Your task to perform on an android device: What's the weather? Image 0: 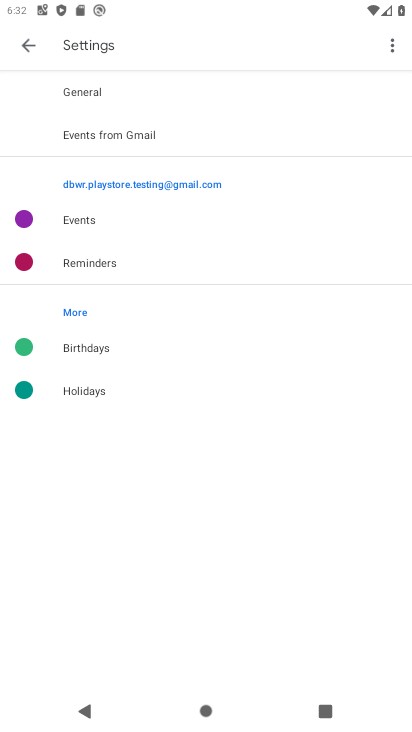
Step 0: press home button
Your task to perform on an android device: What's the weather? Image 1: 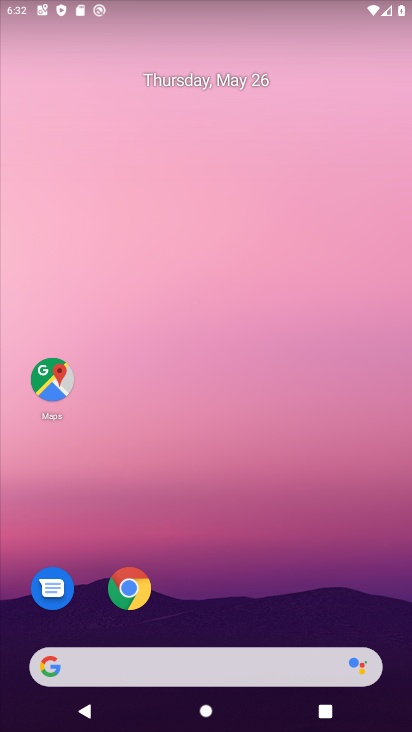
Step 1: drag from (344, 601) to (292, 35)
Your task to perform on an android device: What's the weather? Image 2: 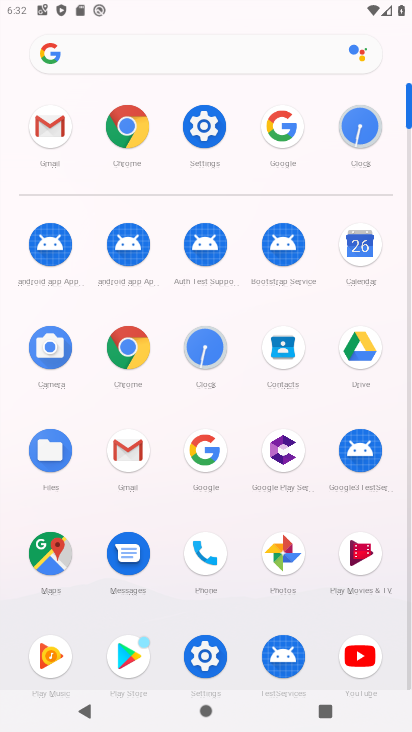
Step 2: click (193, 469)
Your task to perform on an android device: What's the weather? Image 3: 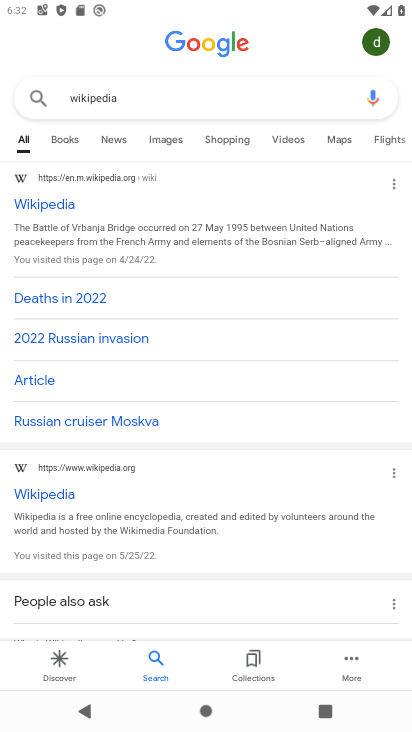
Step 3: press back button
Your task to perform on an android device: What's the weather? Image 4: 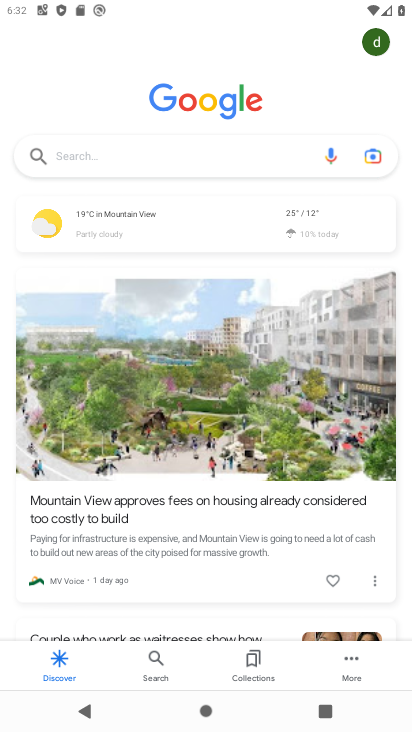
Step 4: click (134, 147)
Your task to perform on an android device: What's the weather? Image 5: 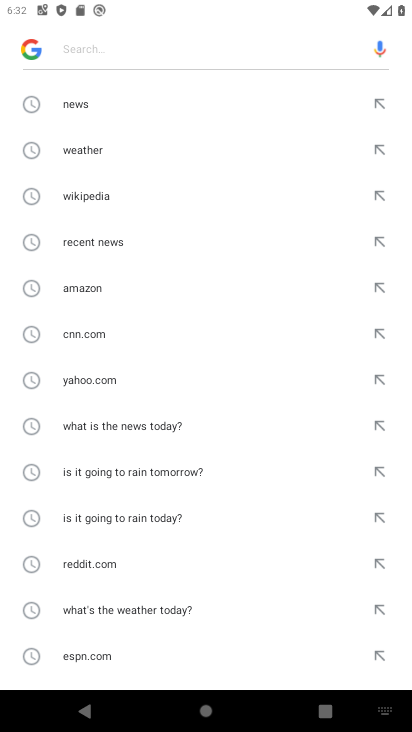
Step 5: click (139, 610)
Your task to perform on an android device: What's the weather? Image 6: 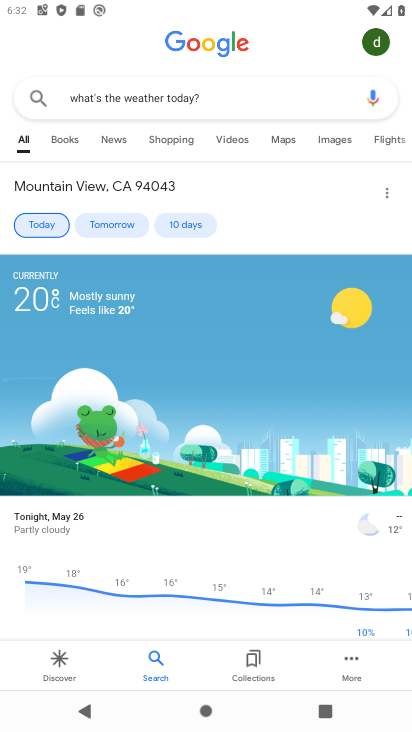
Step 6: task complete